Your task to perform on an android device: Find coffee shops on Maps Image 0: 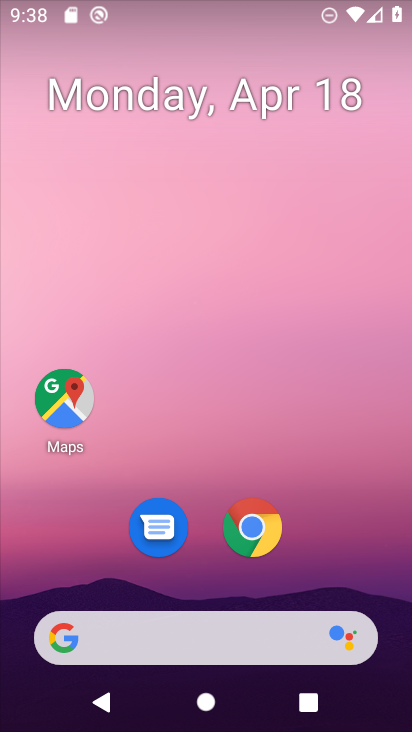
Step 0: drag from (334, 593) to (270, 64)
Your task to perform on an android device: Find coffee shops on Maps Image 1: 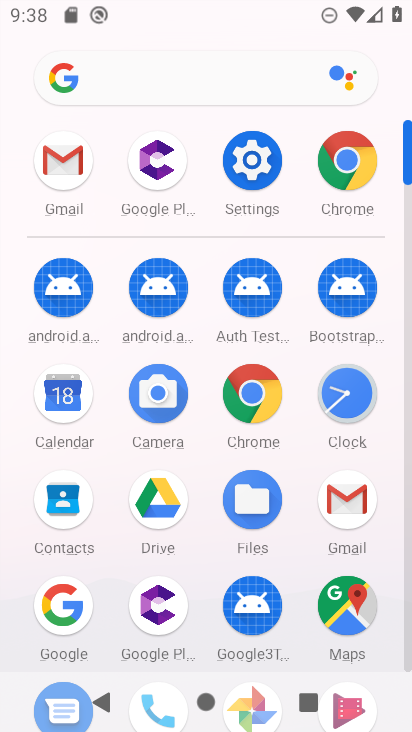
Step 1: click (344, 600)
Your task to perform on an android device: Find coffee shops on Maps Image 2: 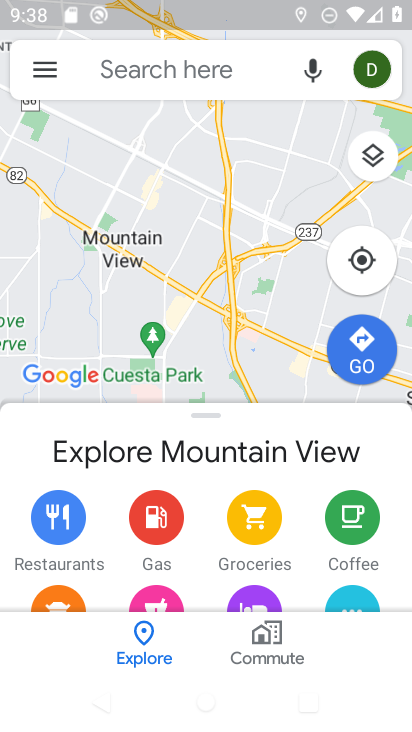
Step 2: click (238, 67)
Your task to perform on an android device: Find coffee shops on Maps Image 3: 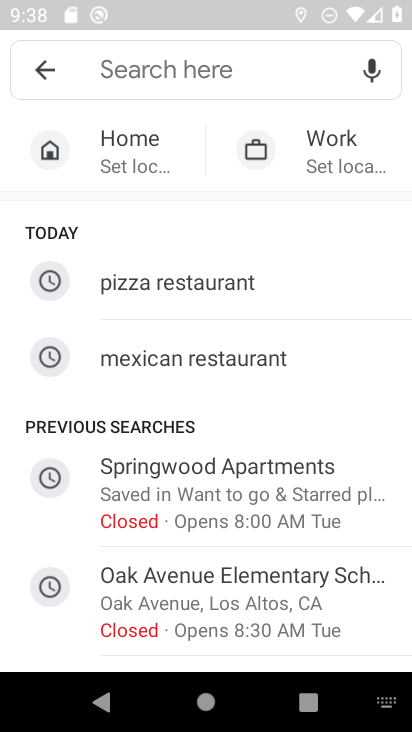
Step 3: drag from (267, 587) to (264, 242)
Your task to perform on an android device: Find coffee shops on Maps Image 4: 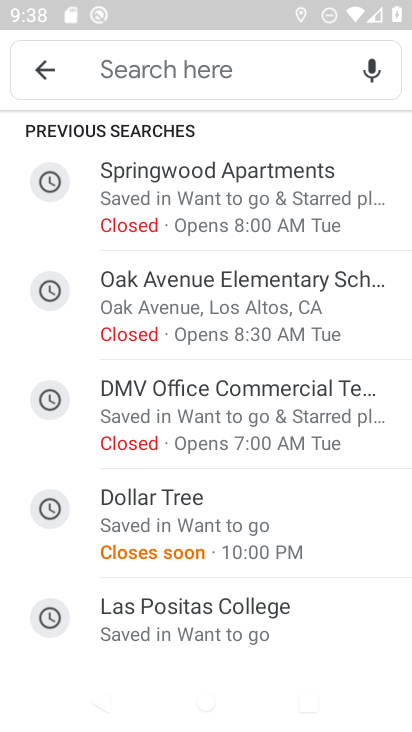
Step 4: drag from (281, 592) to (278, 216)
Your task to perform on an android device: Find coffee shops on Maps Image 5: 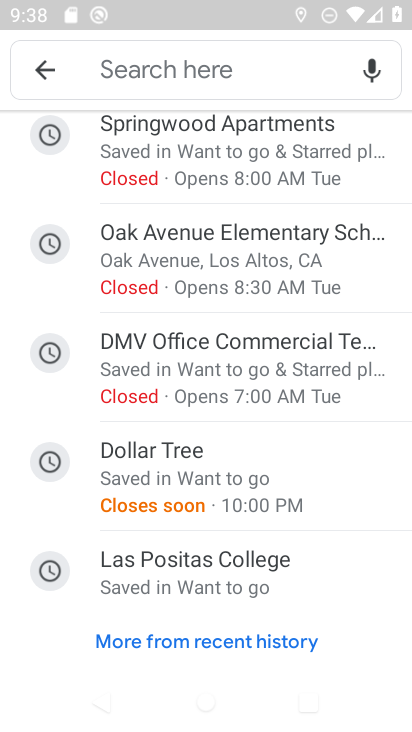
Step 5: click (219, 56)
Your task to perform on an android device: Find coffee shops on Maps Image 6: 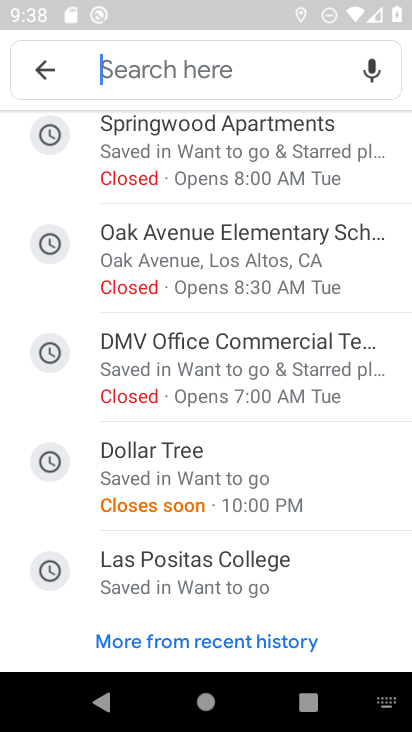
Step 6: type "coffee shops "
Your task to perform on an android device: Find coffee shops on Maps Image 7: 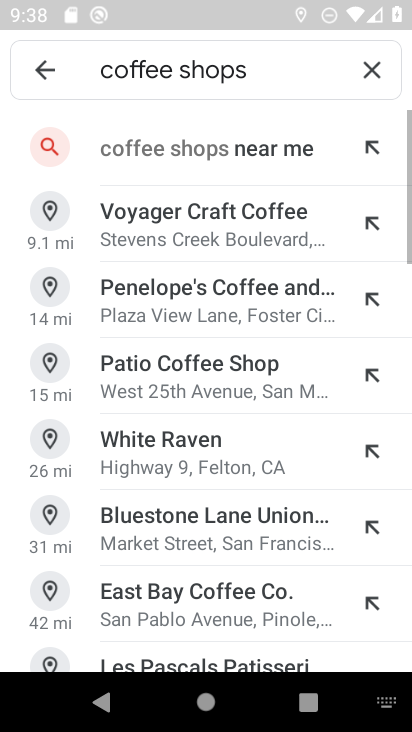
Step 7: click (195, 157)
Your task to perform on an android device: Find coffee shops on Maps Image 8: 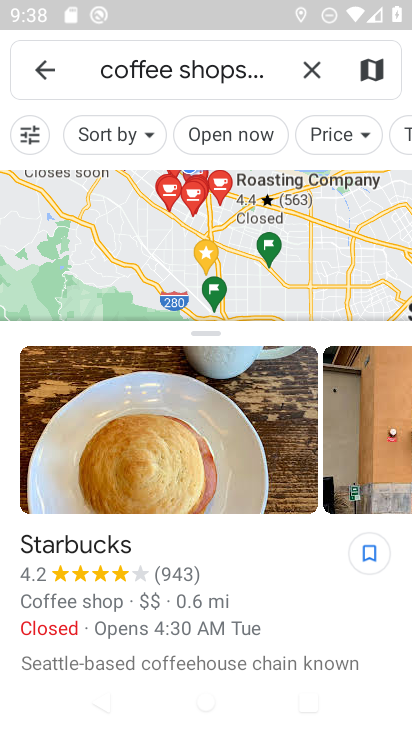
Step 8: task complete